Your task to perform on an android device: Go to location settings Image 0: 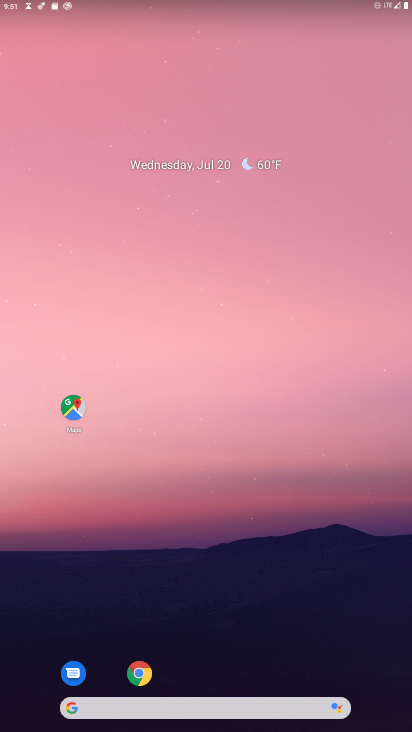
Step 0: drag from (191, 597) to (206, 60)
Your task to perform on an android device: Go to location settings Image 1: 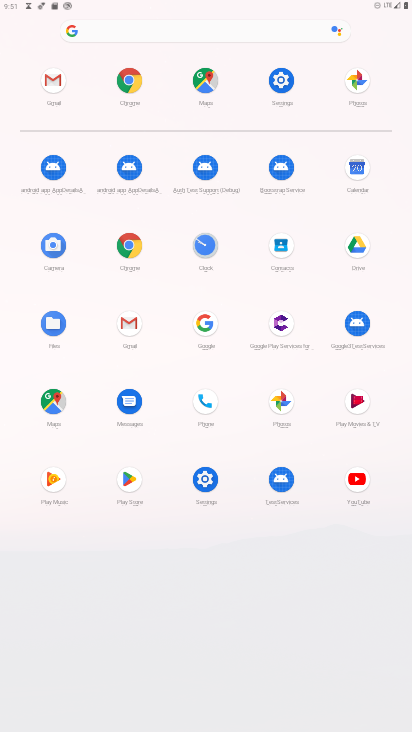
Step 1: click (265, 95)
Your task to perform on an android device: Go to location settings Image 2: 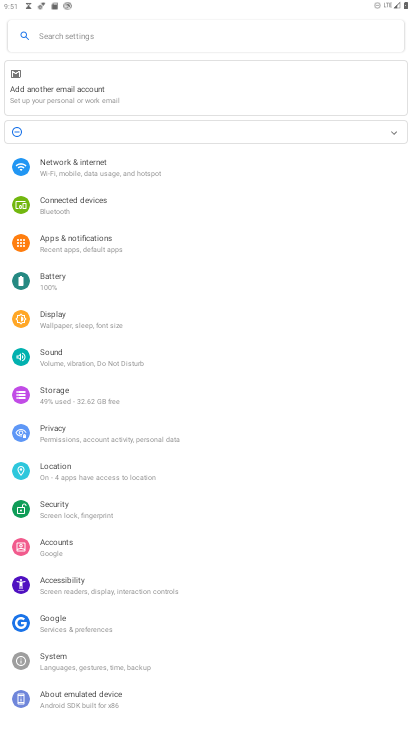
Step 2: click (63, 464)
Your task to perform on an android device: Go to location settings Image 3: 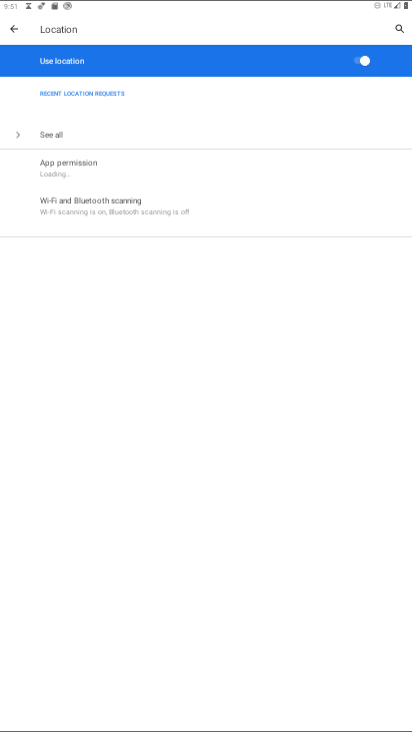
Step 3: click (66, 472)
Your task to perform on an android device: Go to location settings Image 4: 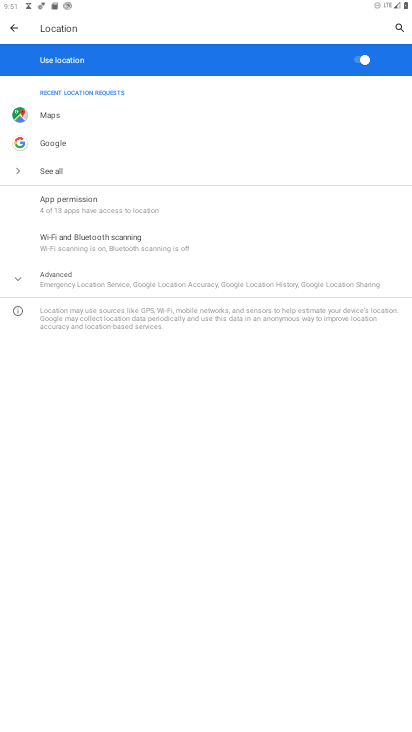
Step 4: task complete